Your task to perform on an android device: show emergency info Image 0: 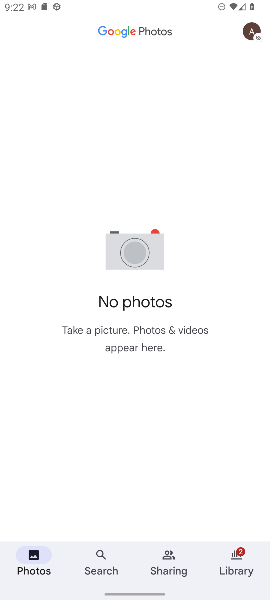
Step 0: press home button
Your task to perform on an android device: show emergency info Image 1: 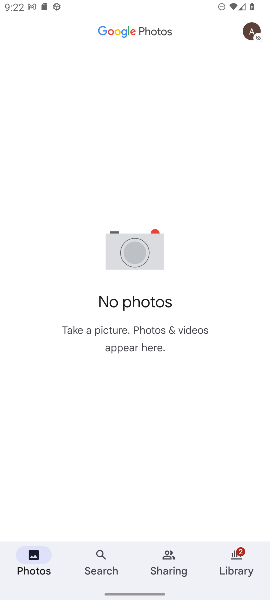
Step 1: press home button
Your task to perform on an android device: show emergency info Image 2: 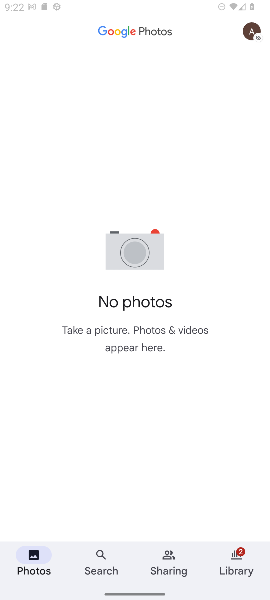
Step 2: press home button
Your task to perform on an android device: show emergency info Image 3: 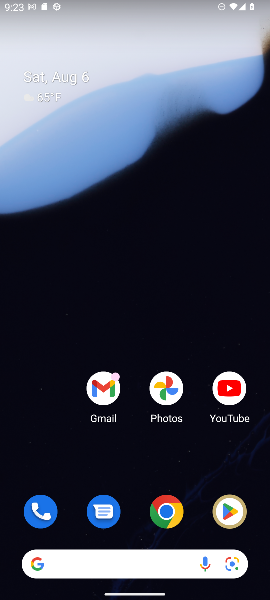
Step 3: drag from (36, 427) to (49, 58)
Your task to perform on an android device: show emergency info Image 4: 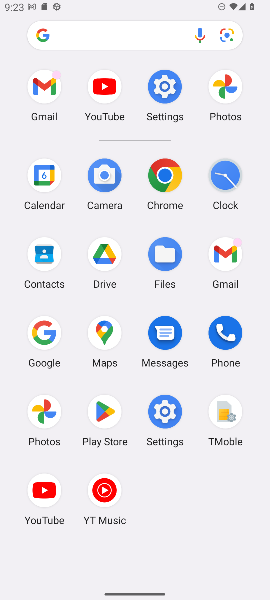
Step 4: click (161, 428)
Your task to perform on an android device: show emergency info Image 5: 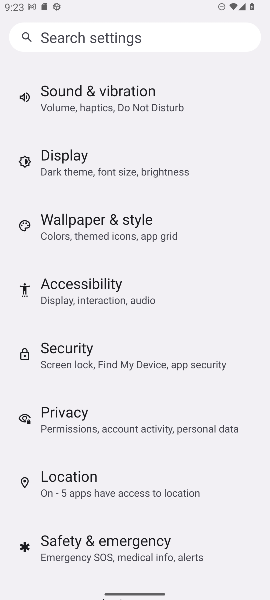
Step 5: drag from (105, 533) to (80, 106)
Your task to perform on an android device: show emergency info Image 6: 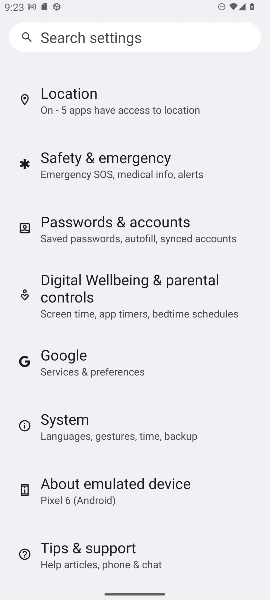
Step 6: drag from (75, 509) to (58, 180)
Your task to perform on an android device: show emergency info Image 7: 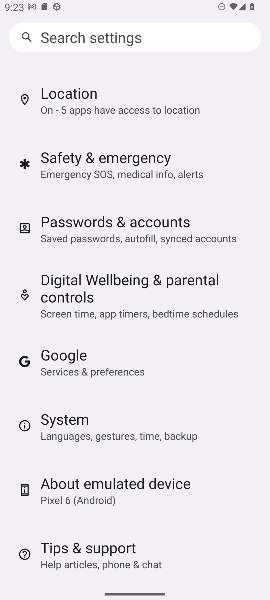
Step 7: click (57, 490)
Your task to perform on an android device: show emergency info Image 8: 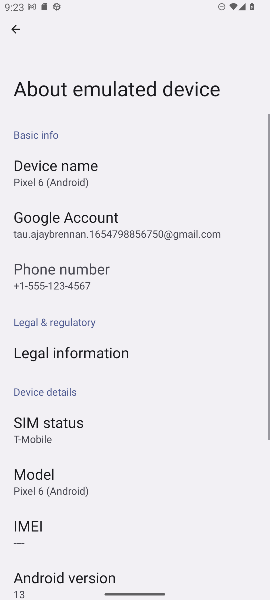
Step 8: task complete